Your task to perform on an android device: find snoozed emails in the gmail app Image 0: 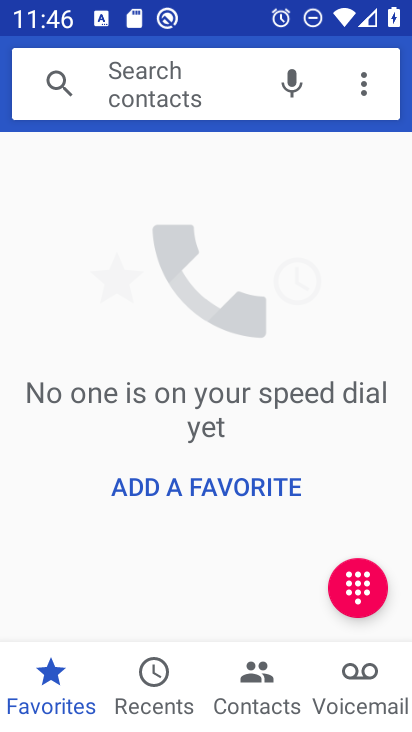
Step 0: press home button
Your task to perform on an android device: find snoozed emails in the gmail app Image 1: 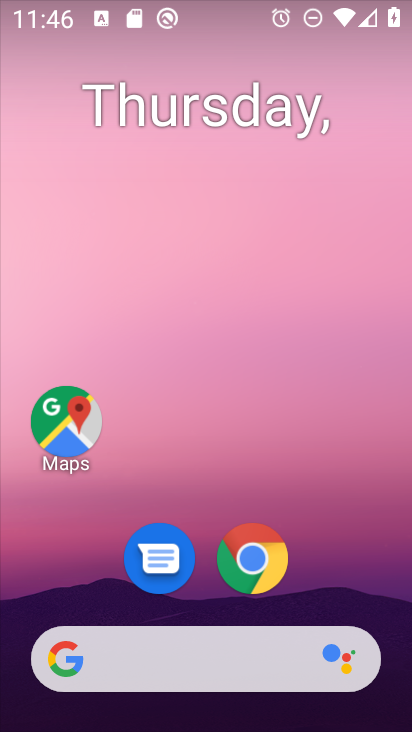
Step 1: drag from (375, 568) to (315, 171)
Your task to perform on an android device: find snoozed emails in the gmail app Image 2: 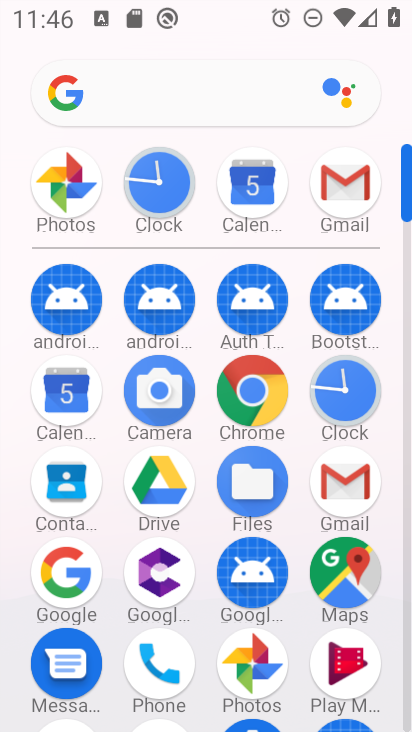
Step 2: click (406, 696)
Your task to perform on an android device: find snoozed emails in the gmail app Image 3: 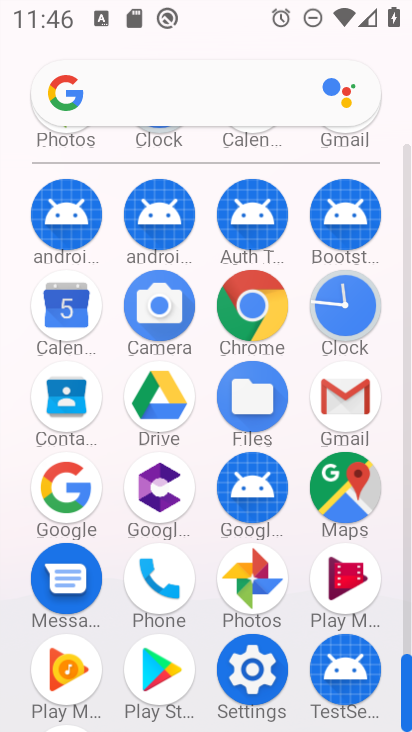
Step 3: click (344, 396)
Your task to perform on an android device: find snoozed emails in the gmail app Image 4: 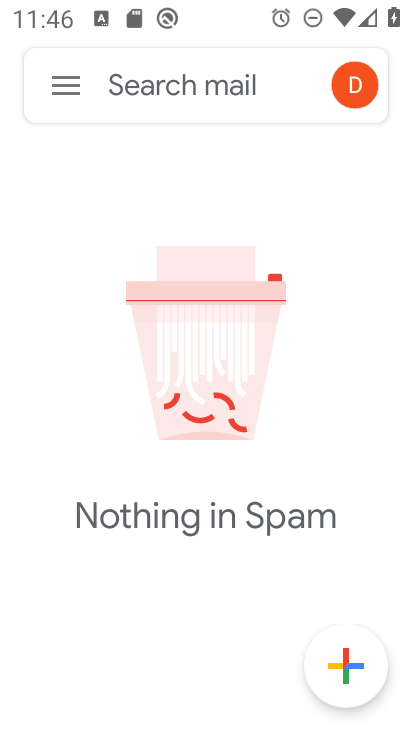
Step 4: click (61, 80)
Your task to perform on an android device: find snoozed emails in the gmail app Image 5: 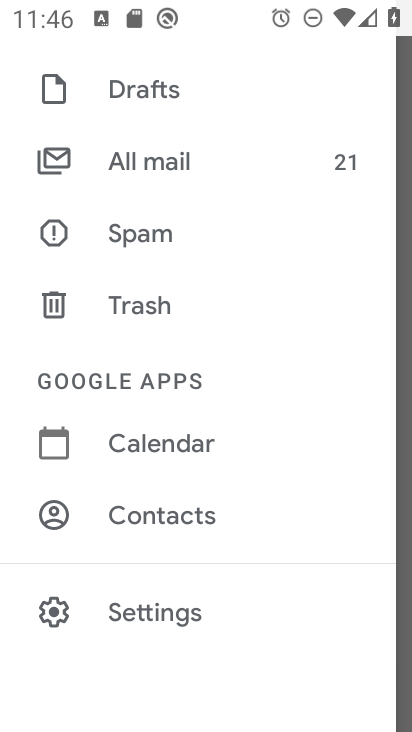
Step 5: drag from (272, 280) to (245, 510)
Your task to perform on an android device: find snoozed emails in the gmail app Image 6: 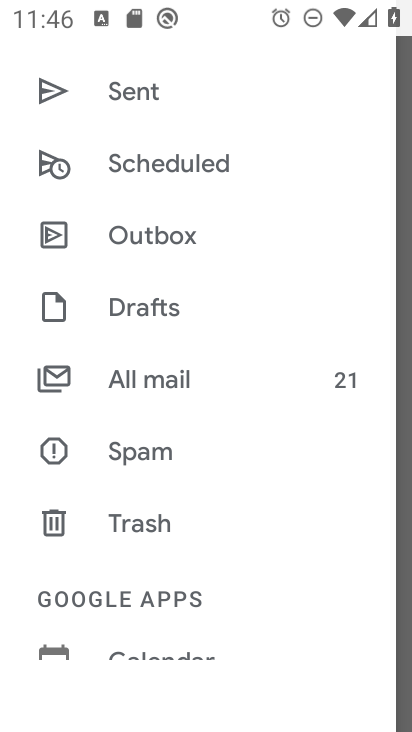
Step 6: drag from (303, 164) to (268, 389)
Your task to perform on an android device: find snoozed emails in the gmail app Image 7: 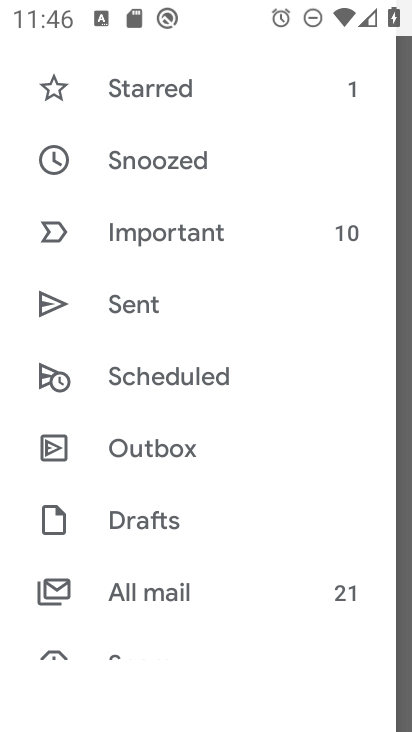
Step 7: drag from (285, 216) to (267, 394)
Your task to perform on an android device: find snoozed emails in the gmail app Image 8: 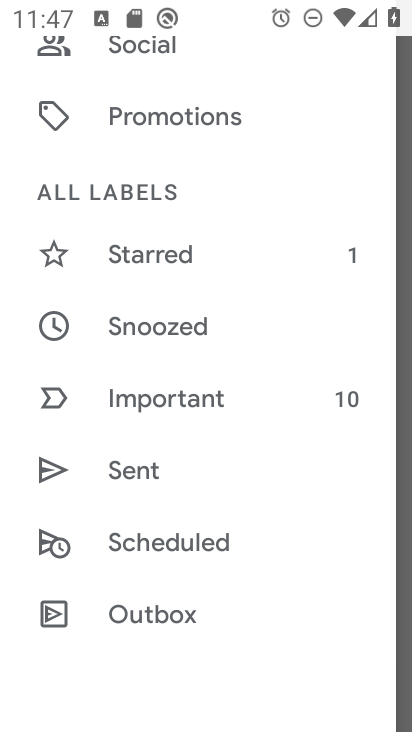
Step 8: click (126, 319)
Your task to perform on an android device: find snoozed emails in the gmail app Image 9: 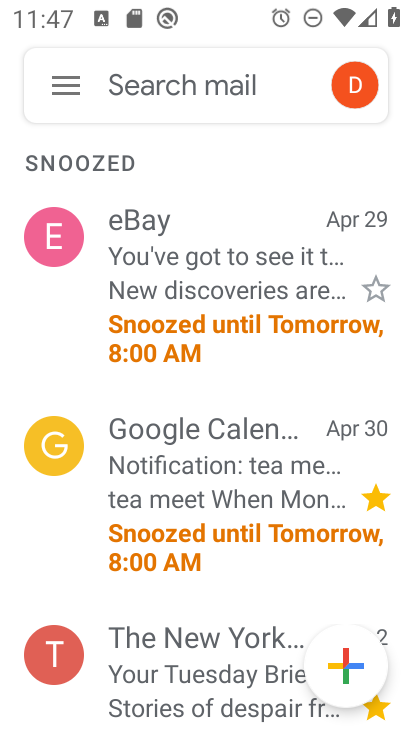
Step 9: task complete